Your task to perform on an android device: add a label to a message in the gmail app Image 0: 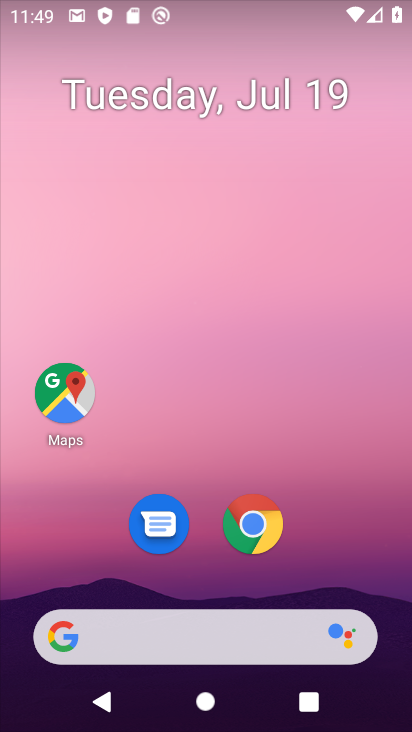
Step 0: drag from (214, 645) to (277, 182)
Your task to perform on an android device: add a label to a message in the gmail app Image 1: 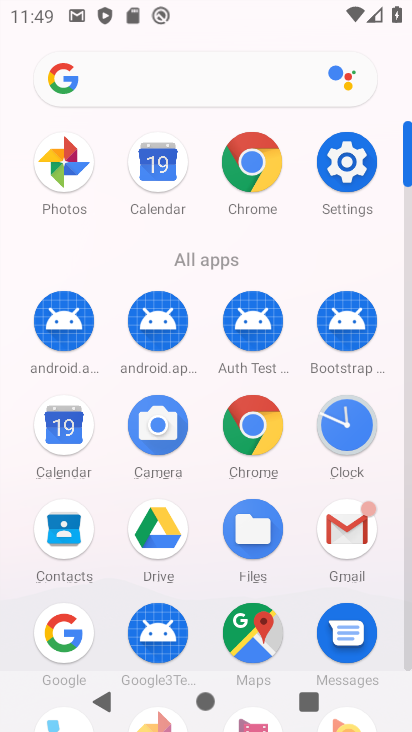
Step 1: click (353, 531)
Your task to perform on an android device: add a label to a message in the gmail app Image 2: 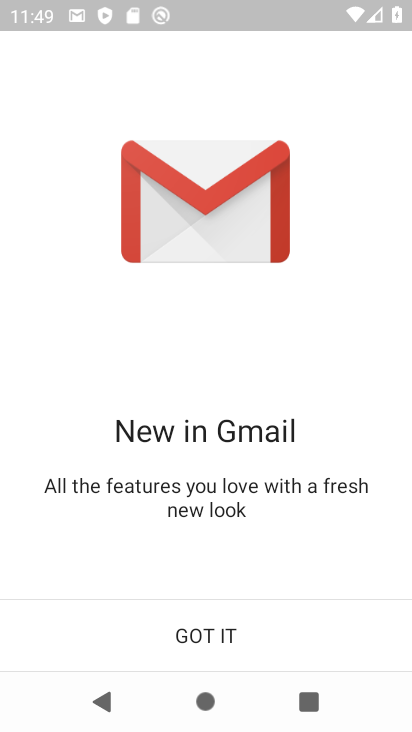
Step 2: click (201, 623)
Your task to perform on an android device: add a label to a message in the gmail app Image 3: 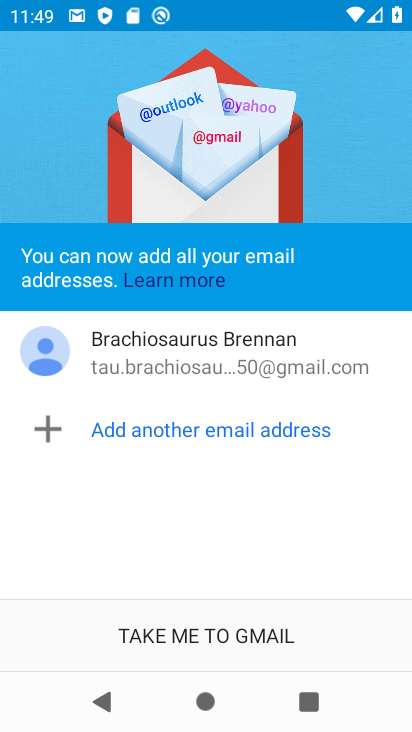
Step 3: click (197, 635)
Your task to perform on an android device: add a label to a message in the gmail app Image 4: 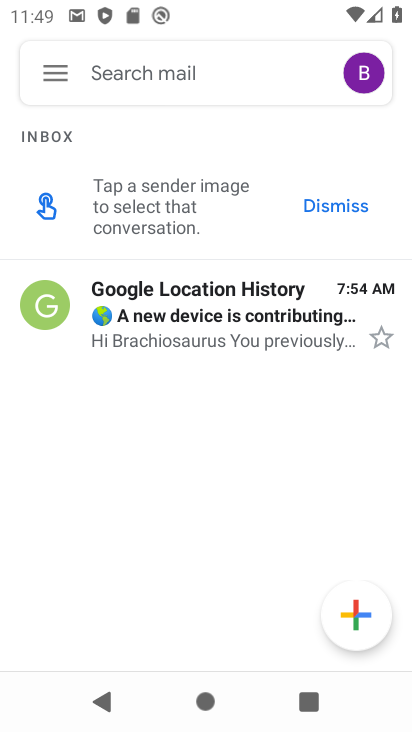
Step 4: click (199, 306)
Your task to perform on an android device: add a label to a message in the gmail app Image 5: 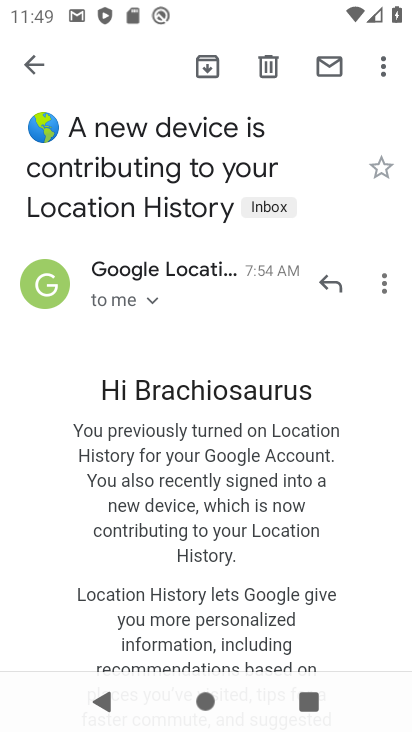
Step 5: click (275, 205)
Your task to perform on an android device: add a label to a message in the gmail app Image 6: 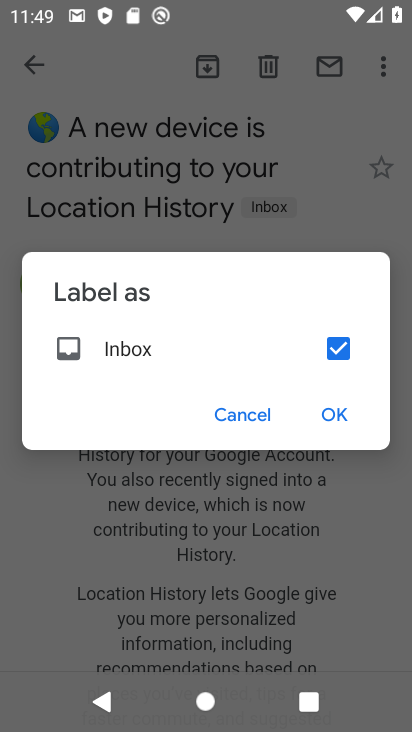
Step 6: click (325, 419)
Your task to perform on an android device: add a label to a message in the gmail app Image 7: 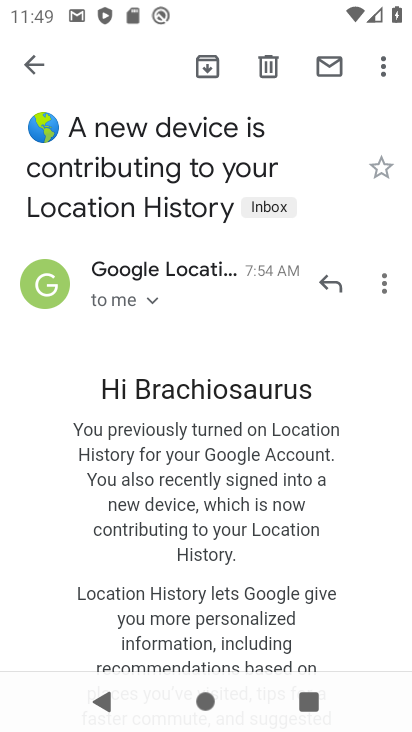
Step 7: task complete